Your task to perform on an android device: change the clock display to show seconds Image 0: 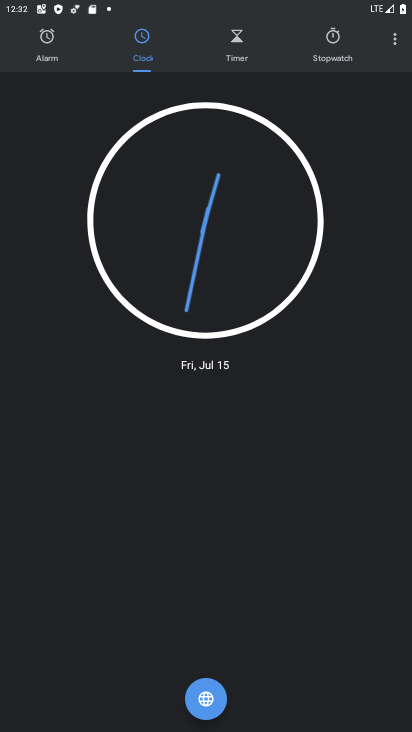
Step 0: press home button
Your task to perform on an android device: change the clock display to show seconds Image 1: 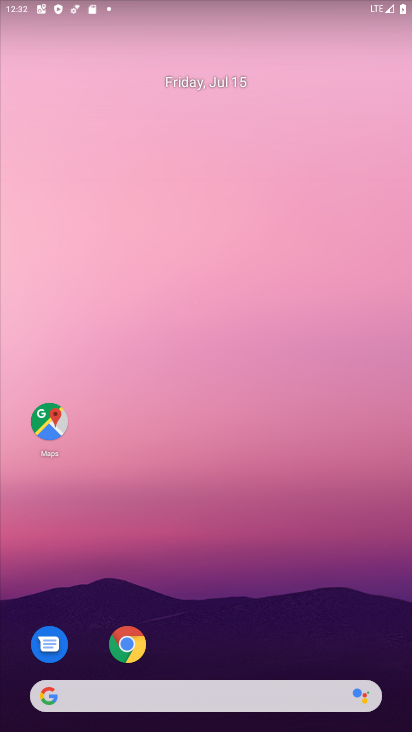
Step 1: drag from (38, 524) to (218, 13)
Your task to perform on an android device: change the clock display to show seconds Image 2: 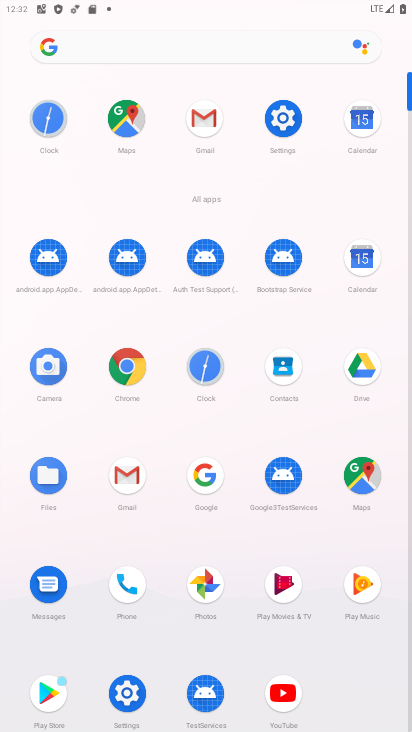
Step 2: click (211, 371)
Your task to perform on an android device: change the clock display to show seconds Image 3: 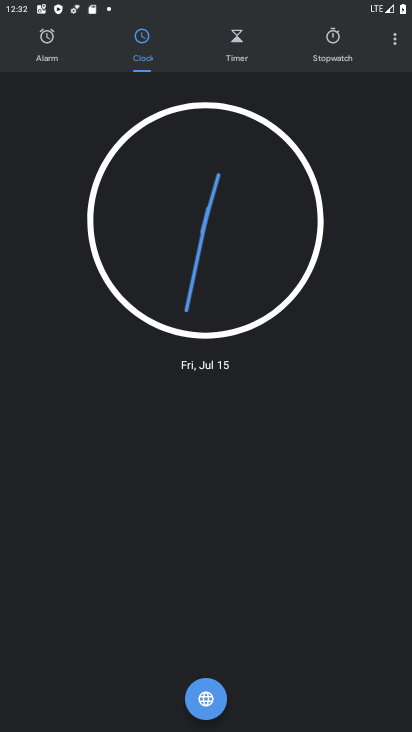
Step 3: click (393, 46)
Your task to perform on an android device: change the clock display to show seconds Image 4: 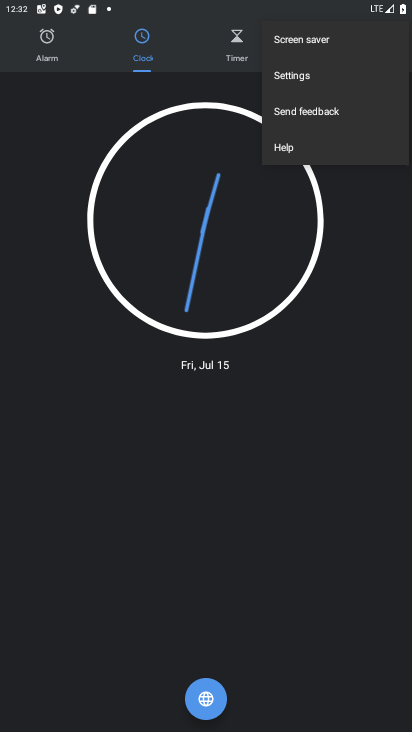
Step 4: click (307, 77)
Your task to perform on an android device: change the clock display to show seconds Image 5: 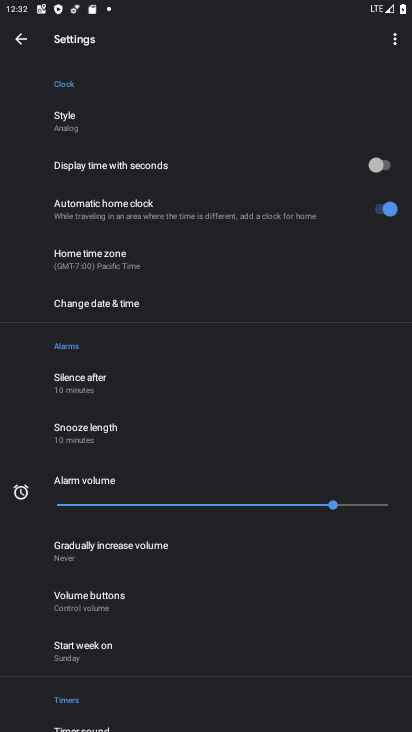
Step 5: task complete